Your task to perform on an android device: Go to CNN.com Image 0: 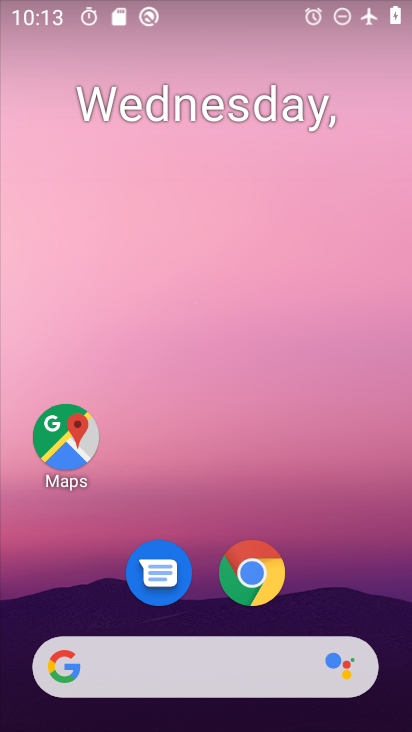
Step 0: click (257, 585)
Your task to perform on an android device: Go to CNN.com Image 1: 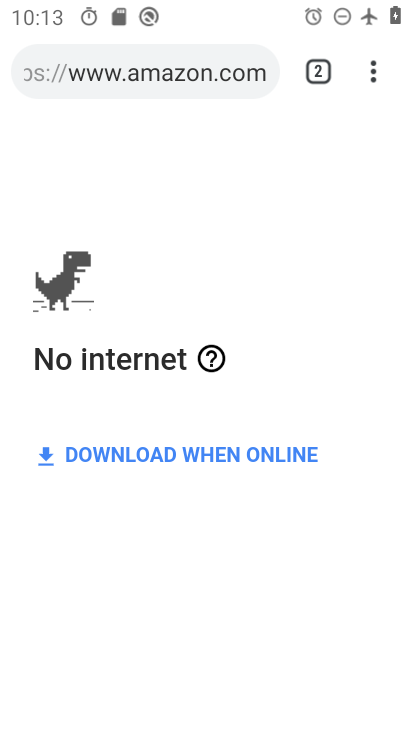
Step 1: click (253, 87)
Your task to perform on an android device: Go to CNN.com Image 2: 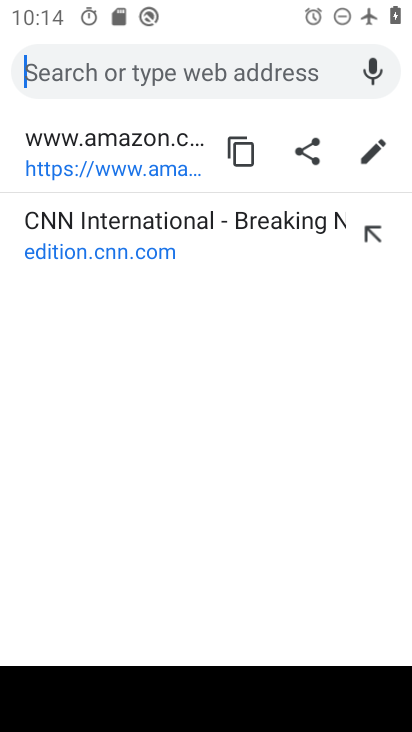
Step 2: click (241, 227)
Your task to perform on an android device: Go to CNN.com Image 3: 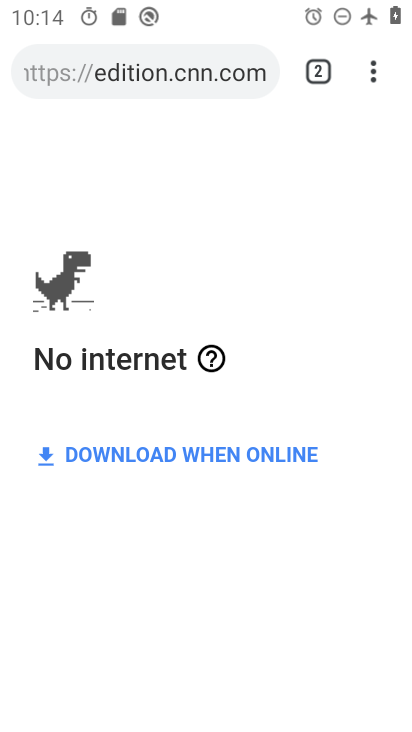
Step 3: task complete